Your task to perform on an android device: Open maps Image 0: 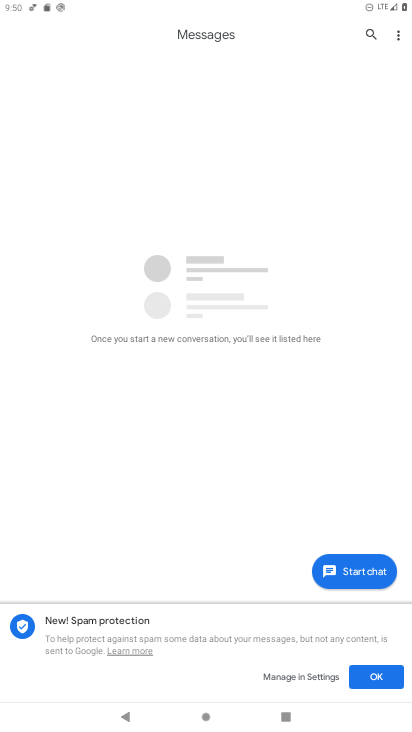
Step 0: press home button
Your task to perform on an android device: Open maps Image 1: 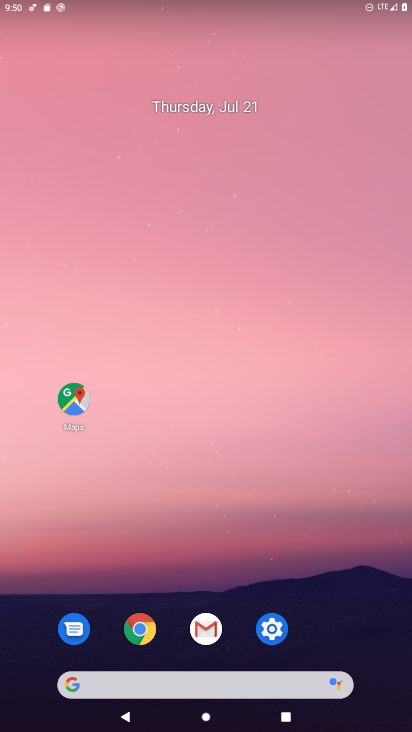
Step 1: click (74, 417)
Your task to perform on an android device: Open maps Image 2: 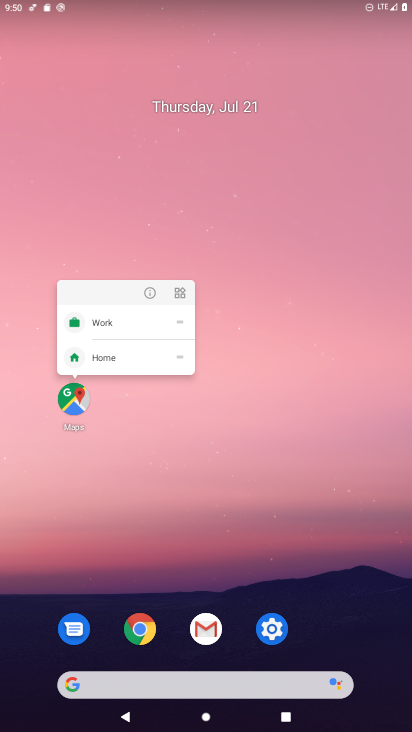
Step 2: click (74, 417)
Your task to perform on an android device: Open maps Image 3: 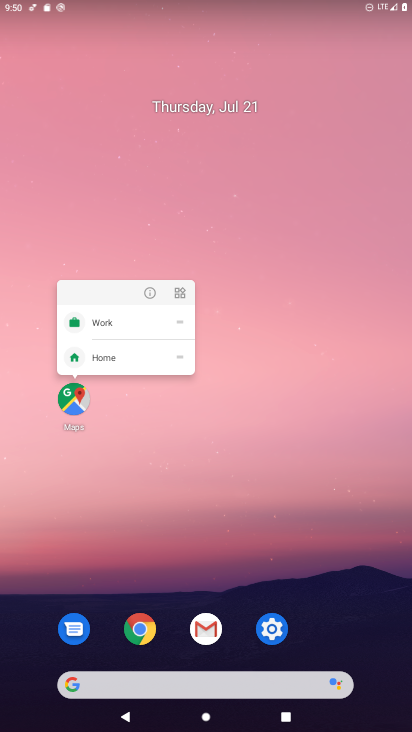
Step 3: click (68, 398)
Your task to perform on an android device: Open maps Image 4: 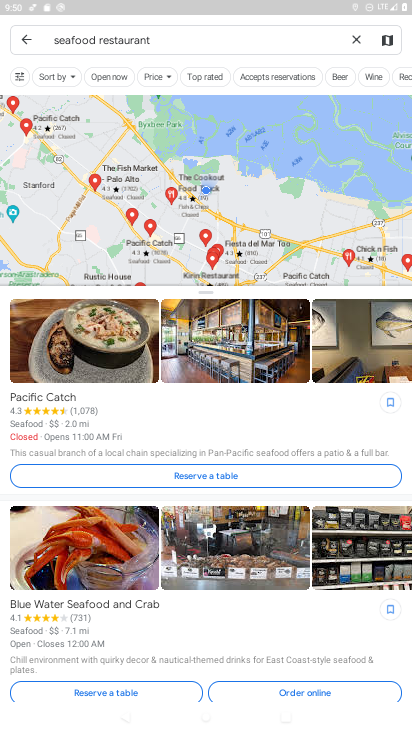
Step 4: click (25, 35)
Your task to perform on an android device: Open maps Image 5: 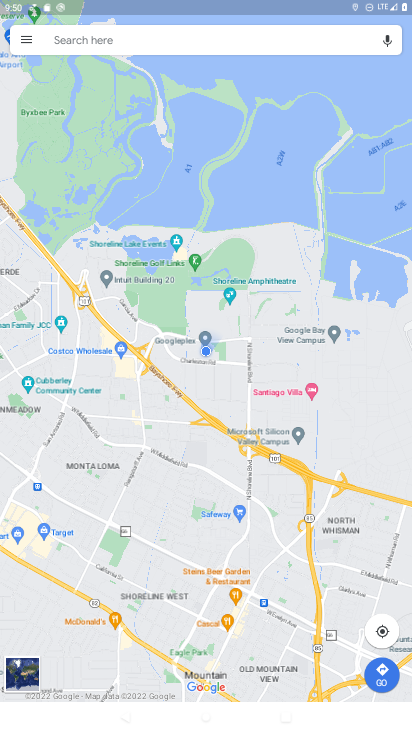
Step 5: click (383, 625)
Your task to perform on an android device: Open maps Image 6: 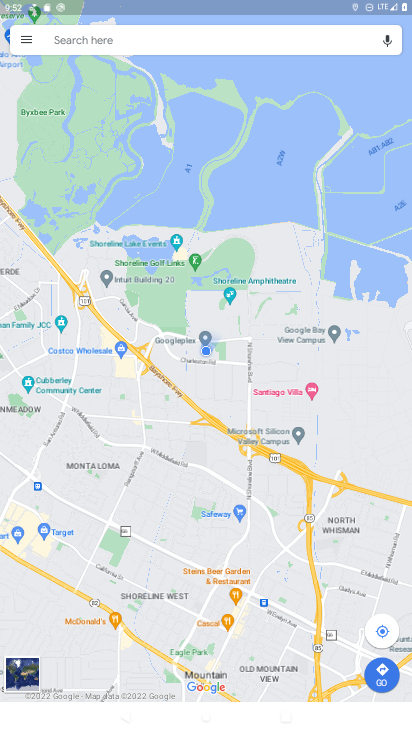
Step 6: task complete